Your task to perform on an android device: turn off location history Image 0: 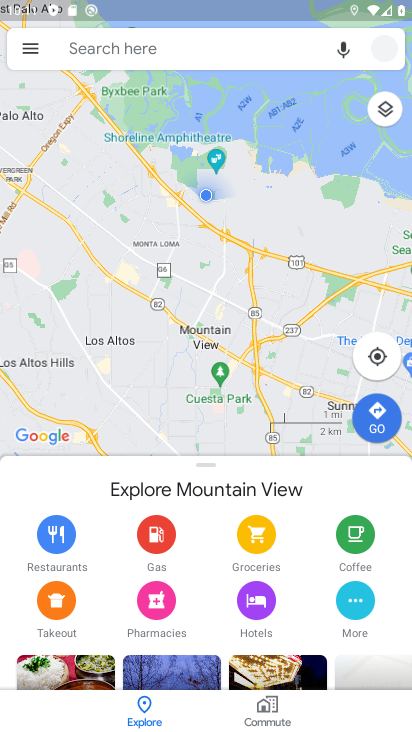
Step 0: press back button
Your task to perform on an android device: turn off location history Image 1: 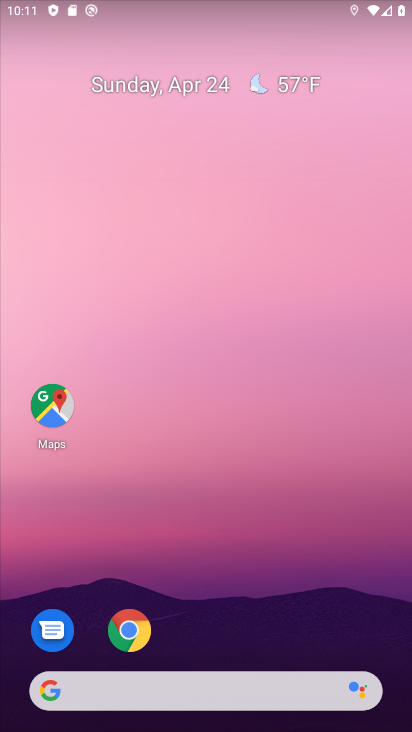
Step 1: drag from (204, 584) to (151, 7)
Your task to perform on an android device: turn off location history Image 2: 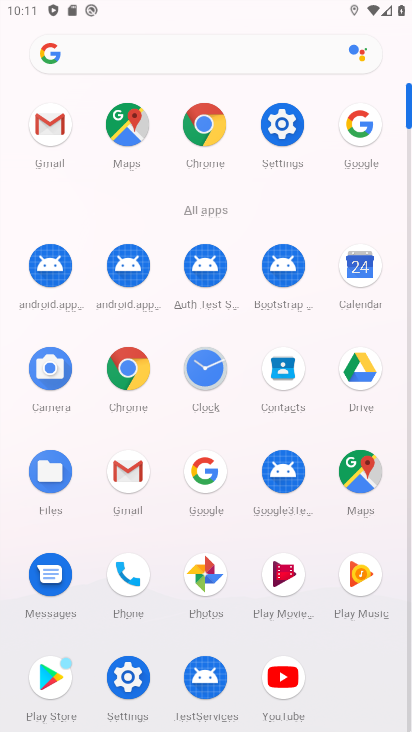
Step 2: click (280, 124)
Your task to perform on an android device: turn off location history Image 3: 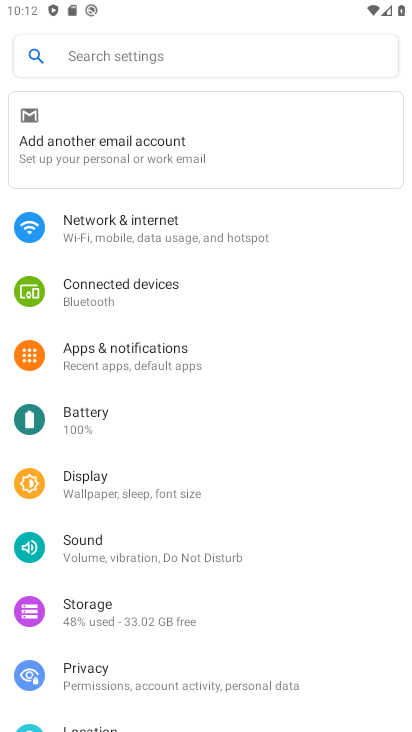
Step 3: drag from (120, 530) to (134, 423)
Your task to perform on an android device: turn off location history Image 4: 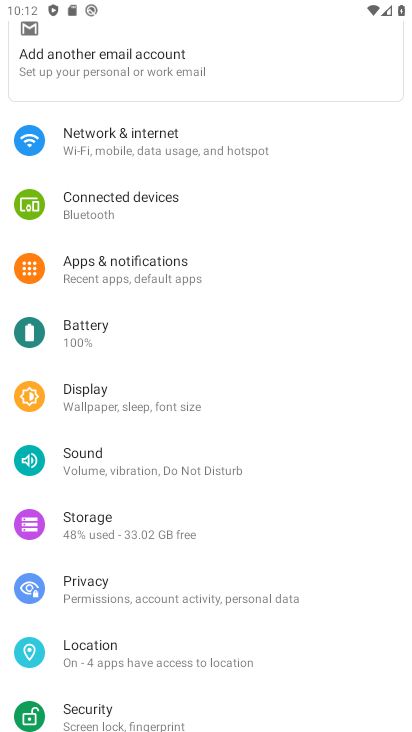
Step 4: drag from (122, 502) to (173, 379)
Your task to perform on an android device: turn off location history Image 5: 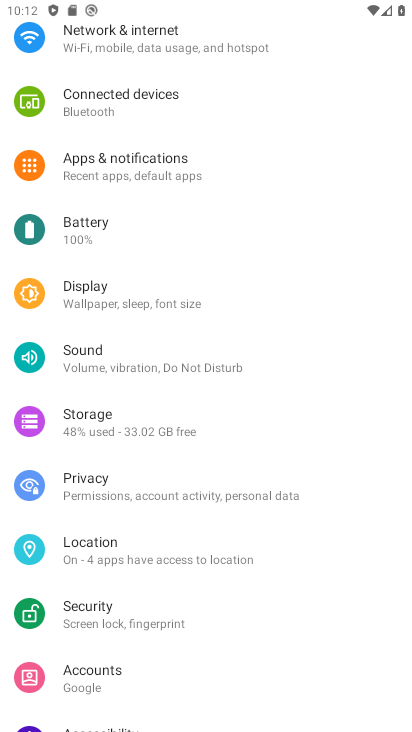
Step 5: click (83, 554)
Your task to perform on an android device: turn off location history Image 6: 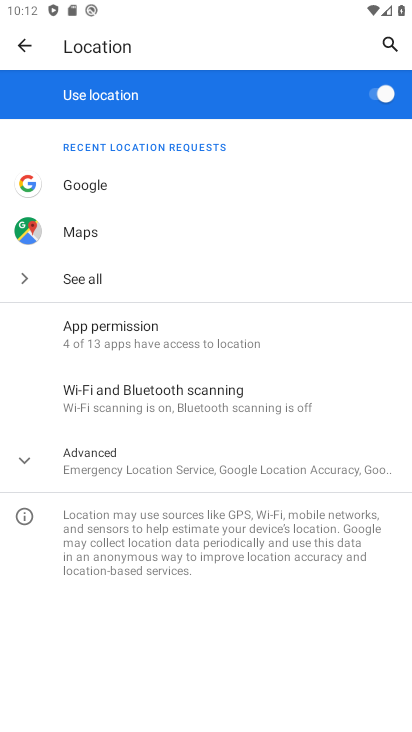
Step 6: click (103, 466)
Your task to perform on an android device: turn off location history Image 7: 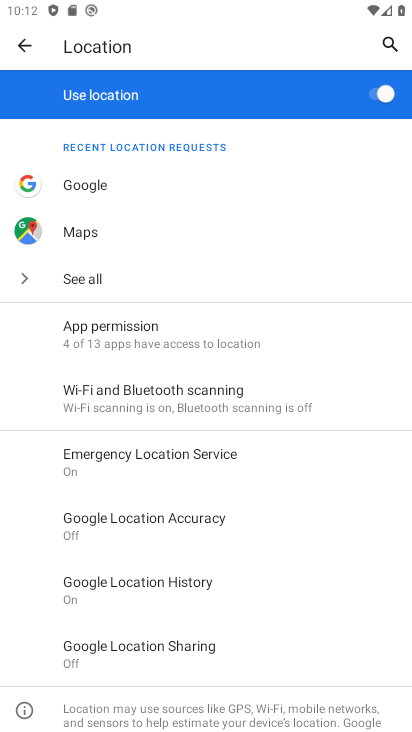
Step 7: click (128, 587)
Your task to perform on an android device: turn off location history Image 8: 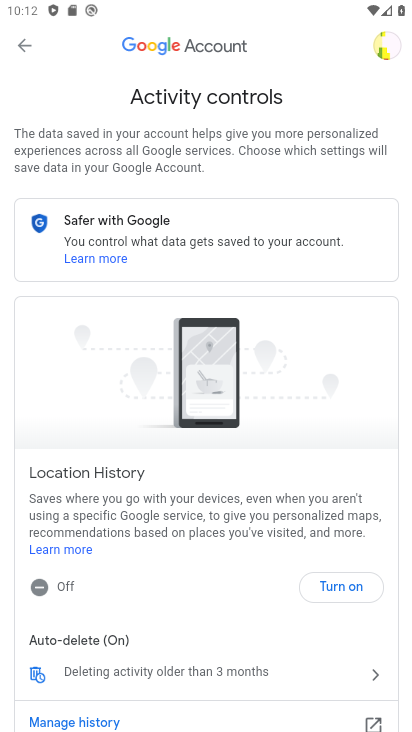
Step 8: task complete